Your task to perform on an android device: Go to Reddit.com Image 0: 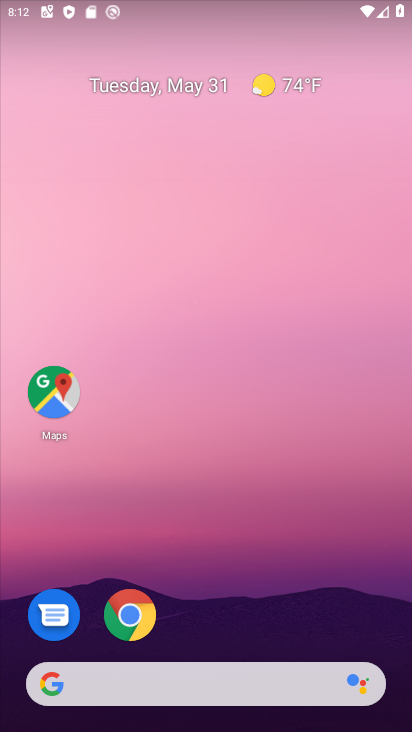
Step 0: press home button
Your task to perform on an android device: Go to Reddit.com Image 1: 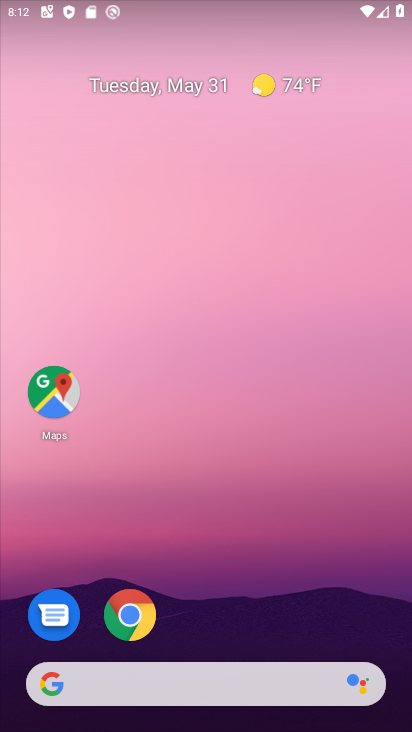
Step 1: click (133, 621)
Your task to perform on an android device: Go to Reddit.com Image 2: 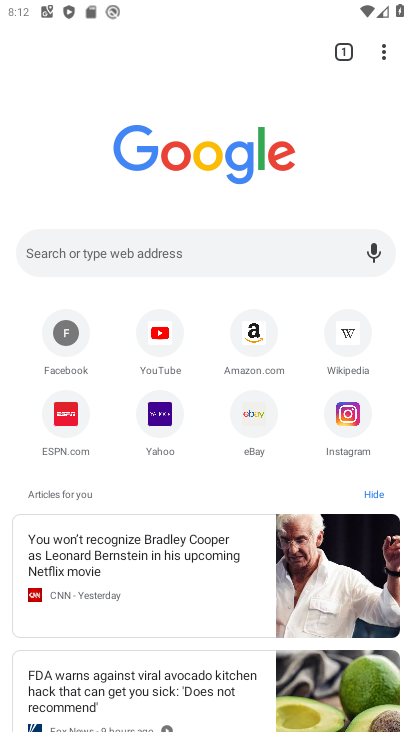
Step 2: click (117, 248)
Your task to perform on an android device: Go to Reddit.com Image 3: 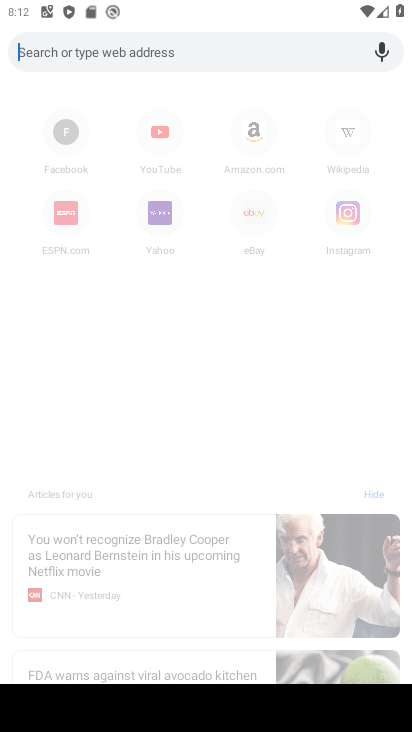
Step 3: type "reddit.com"
Your task to perform on an android device: Go to Reddit.com Image 4: 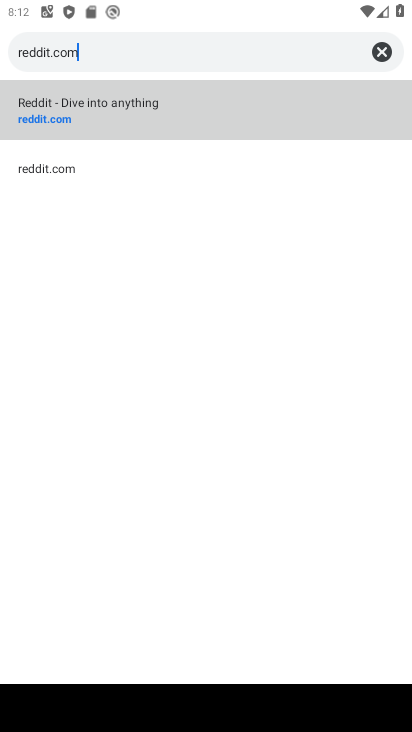
Step 4: click (111, 108)
Your task to perform on an android device: Go to Reddit.com Image 5: 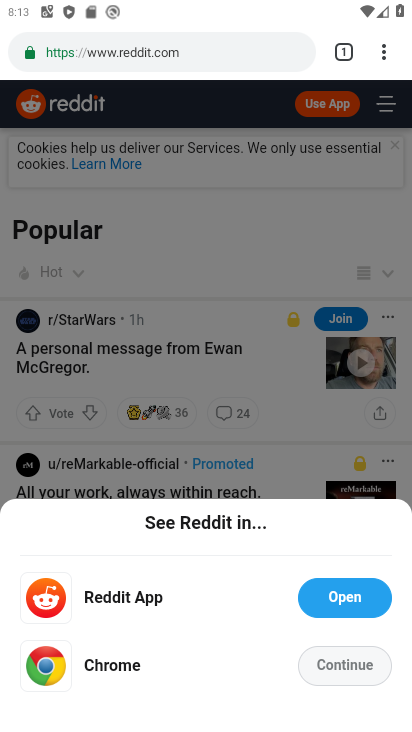
Step 5: task complete